Your task to perform on an android device: Open the phone app and click the voicemail tab. Image 0: 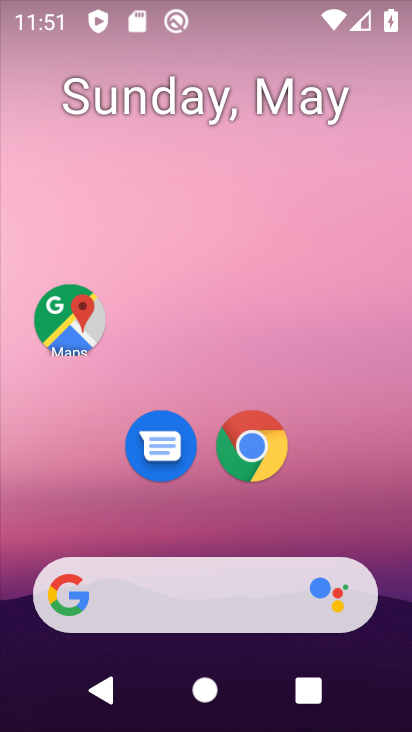
Step 0: drag from (313, 443) to (301, 14)
Your task to perform on an android device: Open the phone app and click the voicemail tab. Image 1: 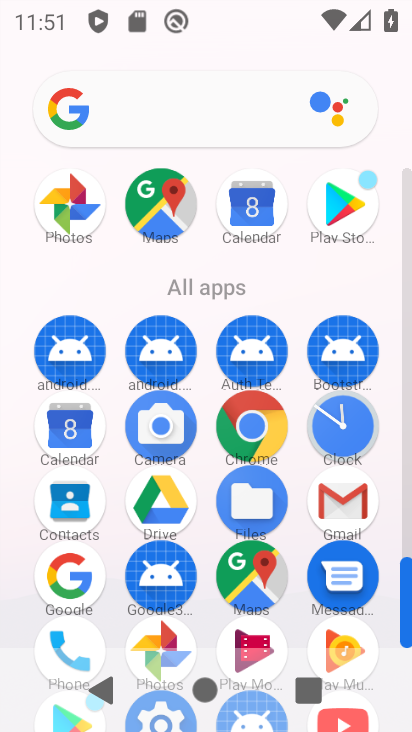
Step 1: drag from (280, 718) to (274, 642)
Your task to perform on an android device: Open the phone app and click the voicemail tab. Image 2: 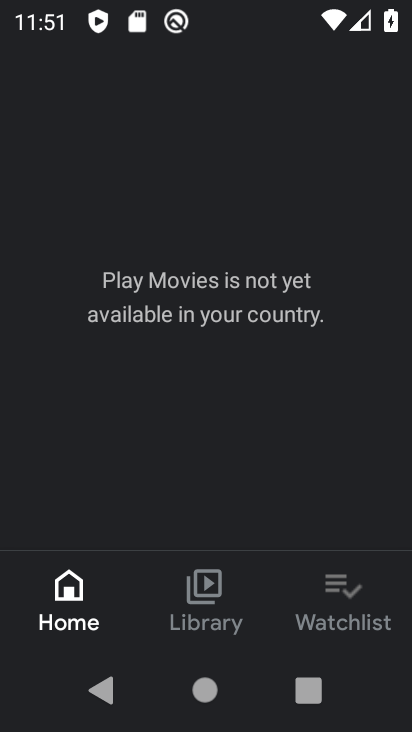
Step 2: press home button
Your task to perform on an android device: Open the phone app and click the voicemail tab. Image 3: 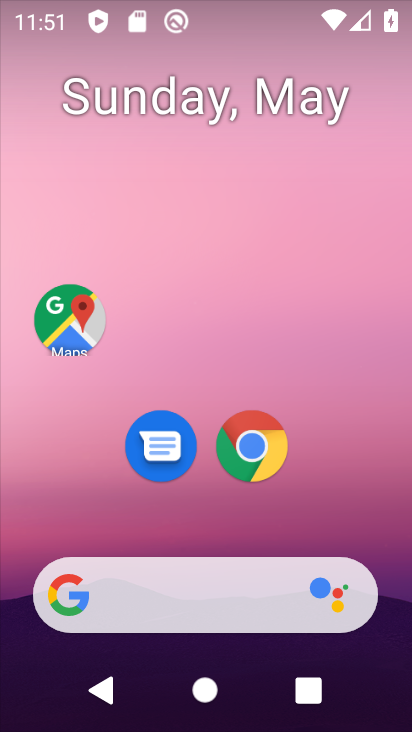
Step 3: drag from (407, 458) to (308, 102)
Your task to perform on an android device: Open the phone app and click the voicemail tab. Image 4: 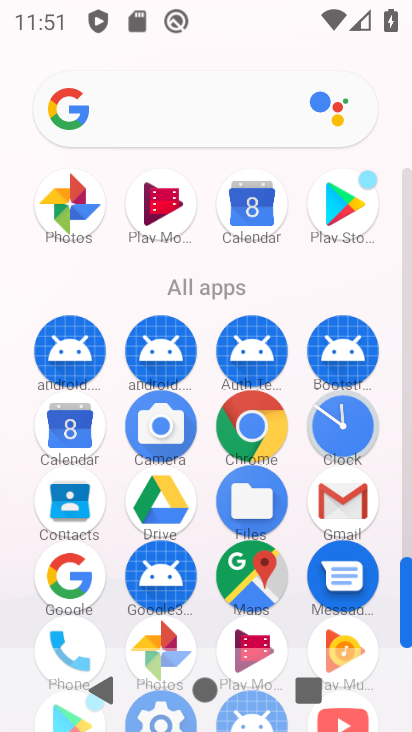
Step 4: click (307, 421)
Your task to perform on an android device: Open the phone app and click the voicemail tab. Image 5: 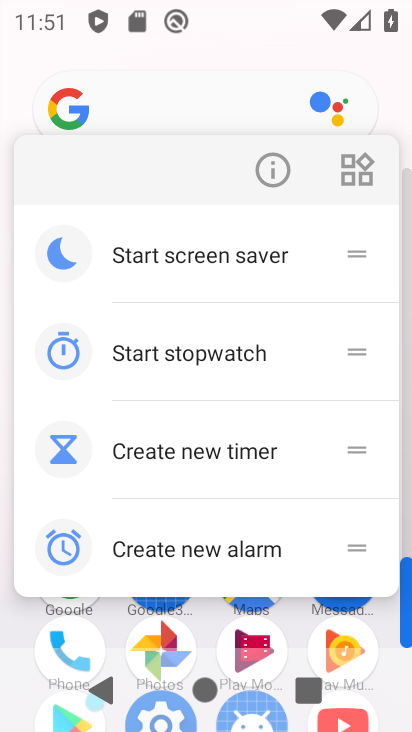
Step 5: press home button
Your task to perform on an android device: Open the phone app and click the voicemail tab. Image 6: 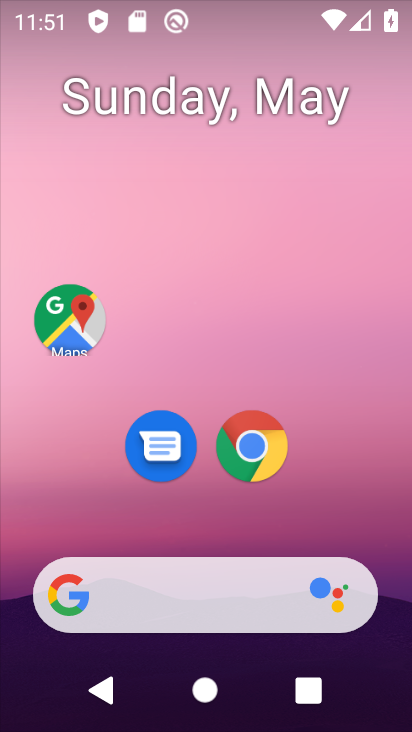
Step 6: drag from (211, 674) to (243, 245)
Your task to perform on an android device: Open the phone app and click the voicemail tab. Image 7: 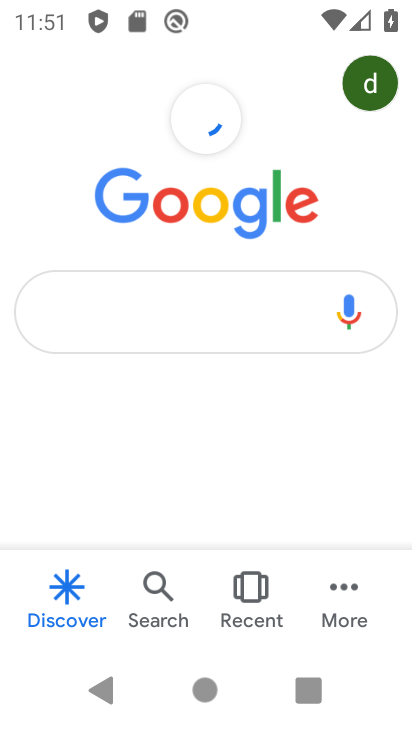
Step 7: press home button
Your task to perform on an android device: Open the phone app and click the voicemail tab. Image 8: 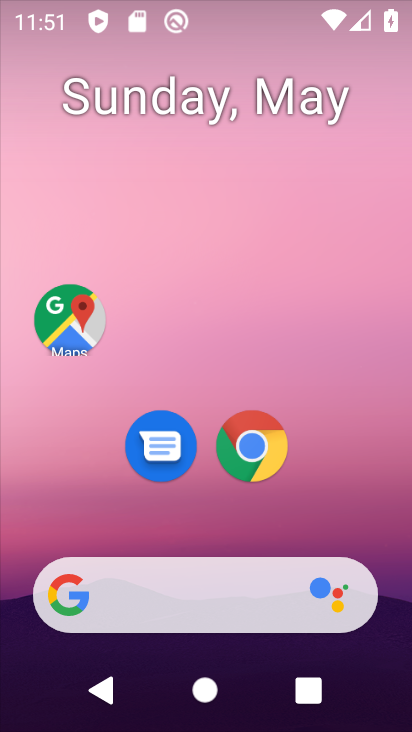
Step 8: drag from (296, 451) to (353, 93)
Your task to perform on an android device: Open the phone app and click the voicemail tab. Image 9: 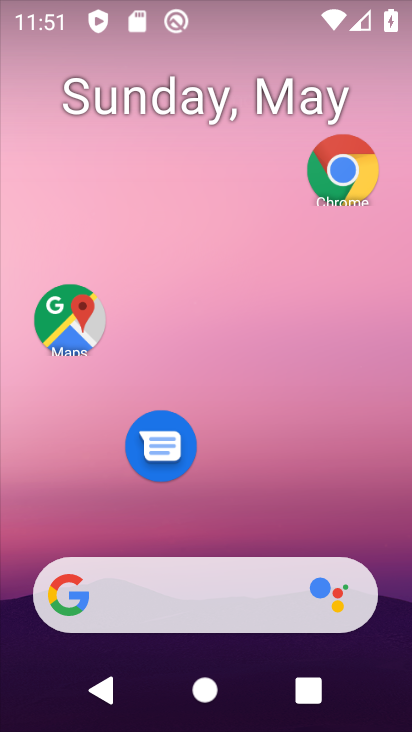
Step 9: drag from (311, 332) to (353, 38)
Your task to perform on an android device: Open the phone app and click the voicemail tab. Image 10: 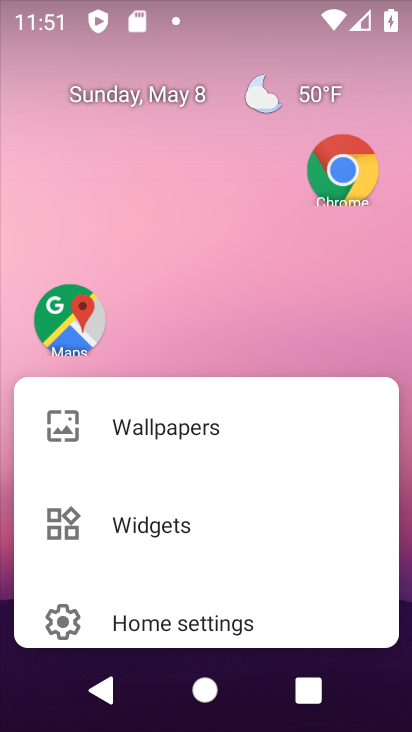
Step 10: click (232, 242)
Your task to perform on an android device: Open the phone app and click the voicemail tab. Image 11: 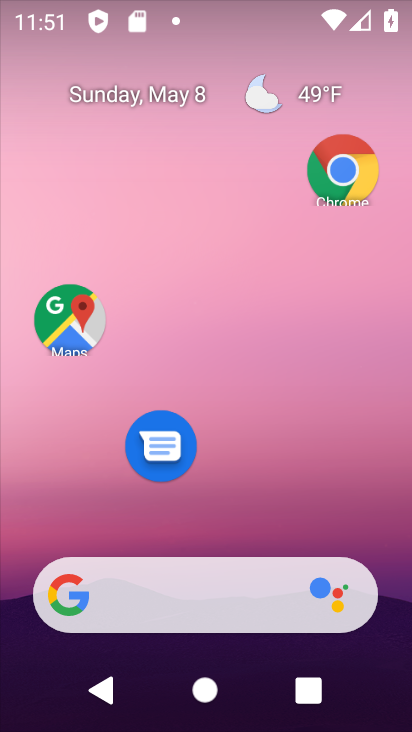
Step 11: drag from (238, 537) to (269, 43)
Your task to perform on an android device: Open the phone app and click the voicemail tab. Image 12: 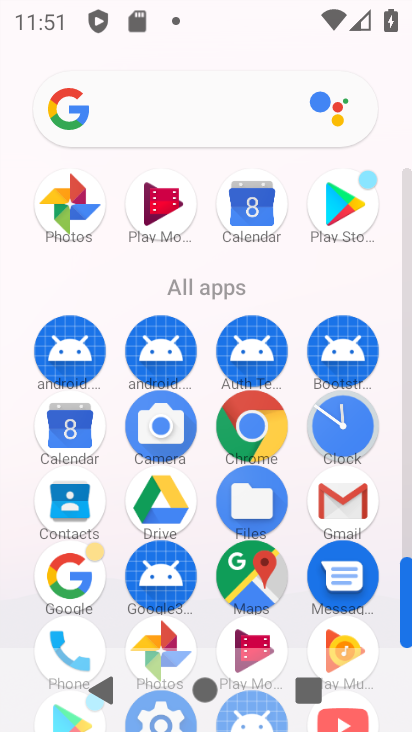
Step 12: drag from (275, 499) to (335, 21)
Your task to perform on an android device: Open the phone app and click the voicemail tab. Image 13: 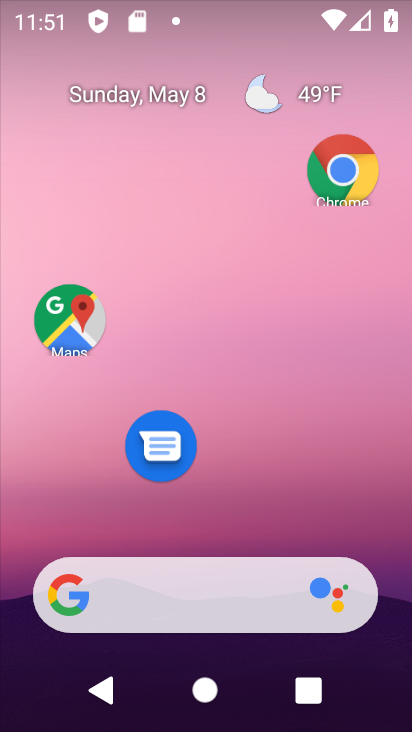
Step 13: press home button
Your task to perform on an android device: Open the phone app and click the voicemail tab. Image 14: 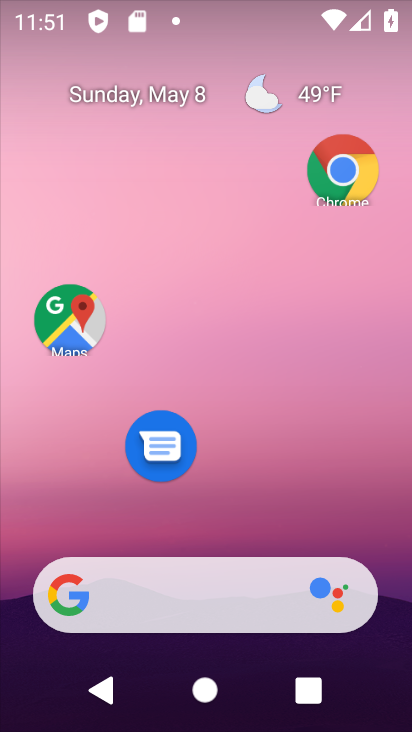
Step 14: drag from (114, 409) to (155, 96)
Your task to perform on an android device: Open the phone app and click the voicemail tab. Image 15: 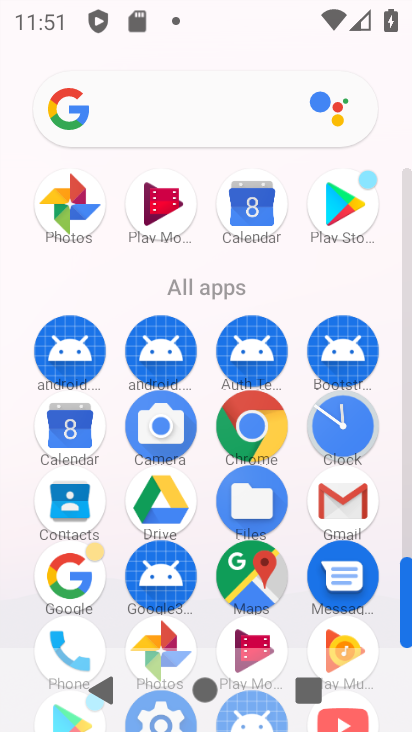
Step 15: drag from (199, 685) to (297, 344)
Your task to perform on an android device: Open the phone app and click the voicemail tab. Image 16: 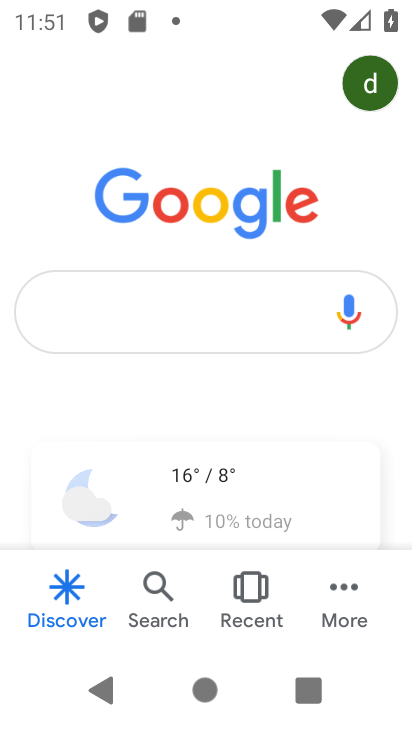
Step 16: click (106, 679)
Your task to perform on an android device: Open the phone app and click the voicemail tab. Image 17: 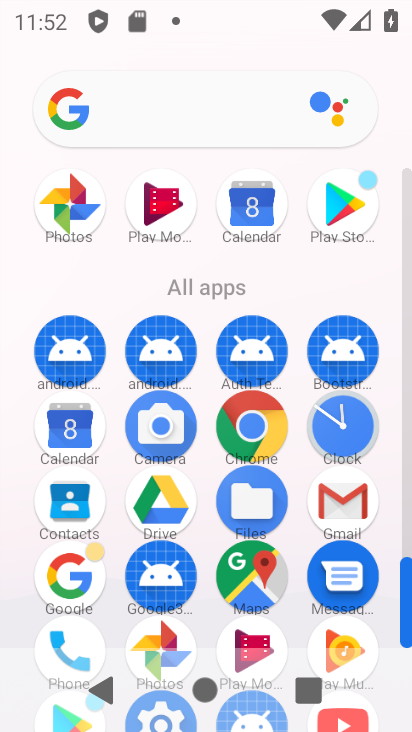
Step 17: drag from (161, 634) to (248, 222)
Your task to perform on an android device: Open the phone app and click the voicemail tab. Image 18: 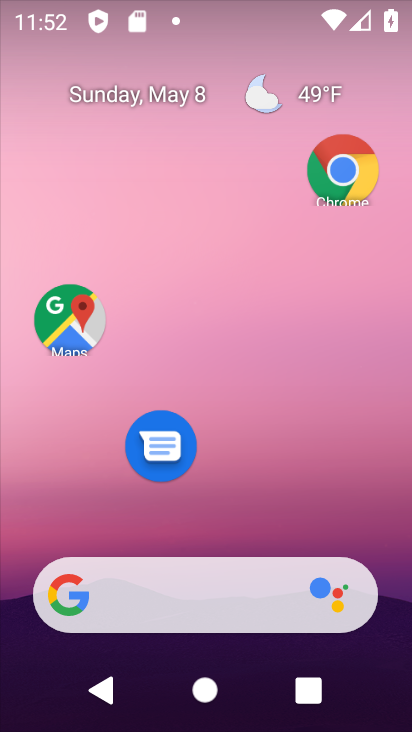
Step 18: drag from (248, 532) to (299, 151)
Your task to perform on an android device: Open the phone app and click the voicemail tab. Image 19: 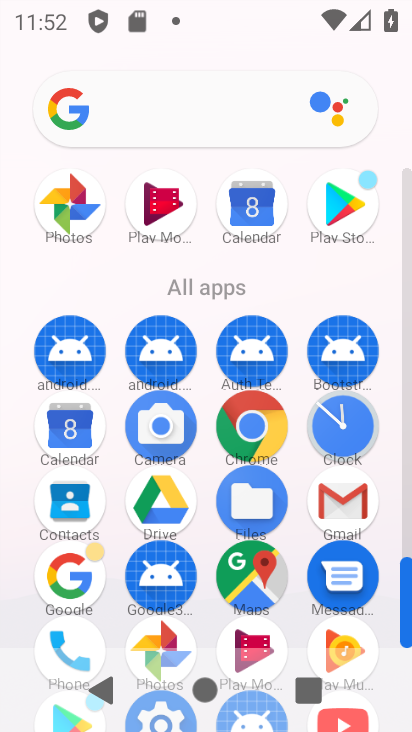
Step 19: drag from (303, 462) to (321, 182)
Your task to perform on an android device: Open the phone app and click the voicemail tab. Image 20: 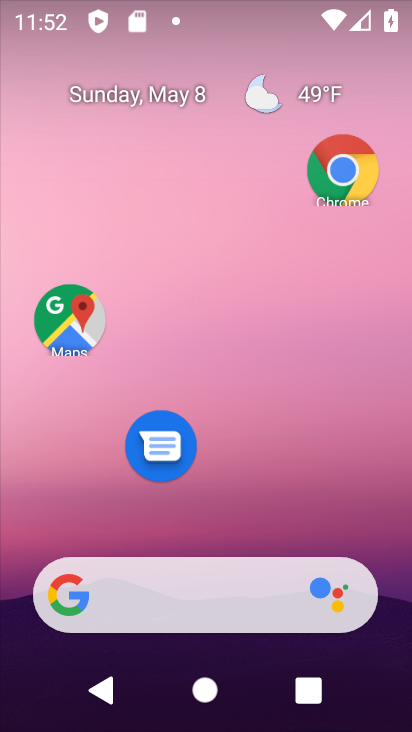
Step 20: drag from (266, 511) to (384, 9)
Your task to perform on an android device: Open the phone app and click the voicemail tab. Image 21: 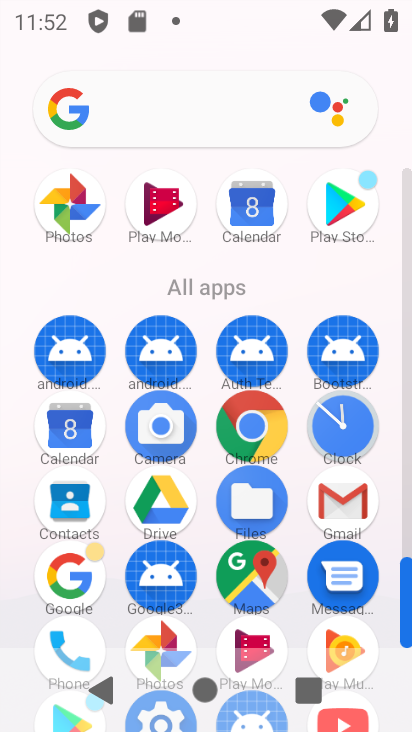
Step 21: drag from (388, 468) to (383, 249)
Your task to perform on an android device: Open the phone app and click the voicemail tab. Image 22: 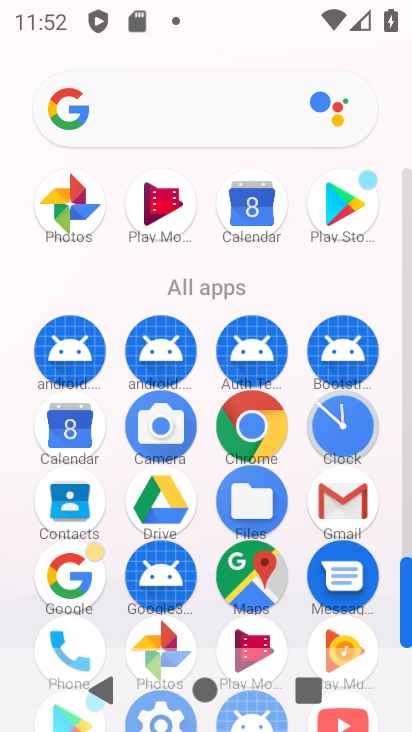
Step 22: drag from (338, 618) to (353, 357)
Your task to perform on an android device: Open the phone app and click the voicemail tab. Image 23: 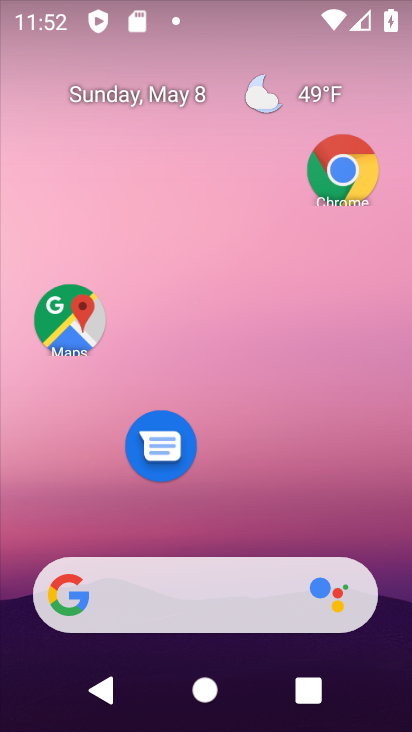
Step 23: drag from (242, 526) to (374, 72)
Your task to perform on an android device: Open the phone app and click the voicemail tab. Image 24: 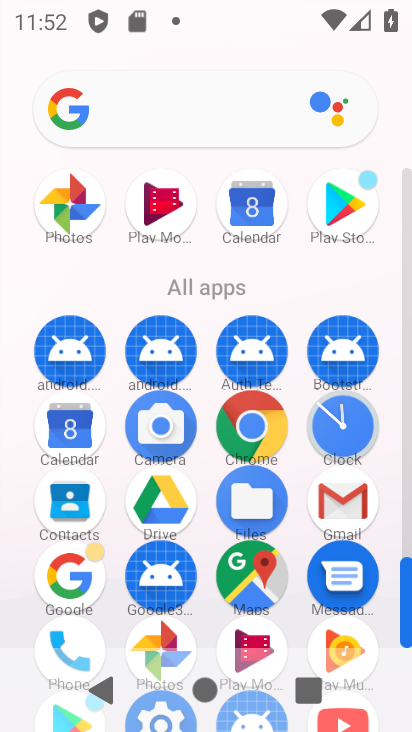
Step 24: click (11, 152)
Your task to perform on an android device: Open the phone app and click the voicemail tab. Image 25: 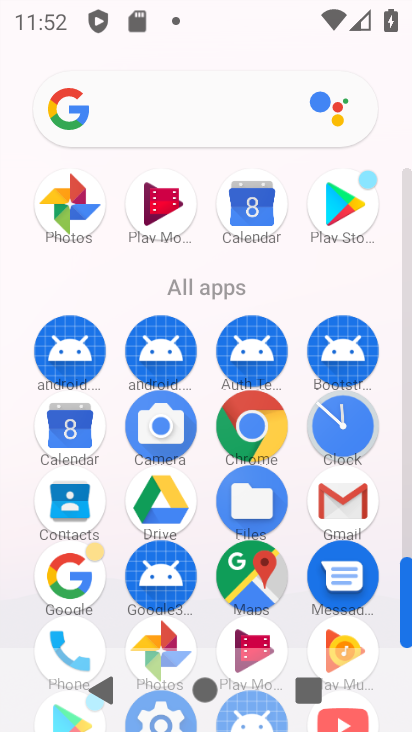
Step 25: click (11, 152)
Your task to perform on an android device: Open the phone app and click the voicemail tab. Image 26: 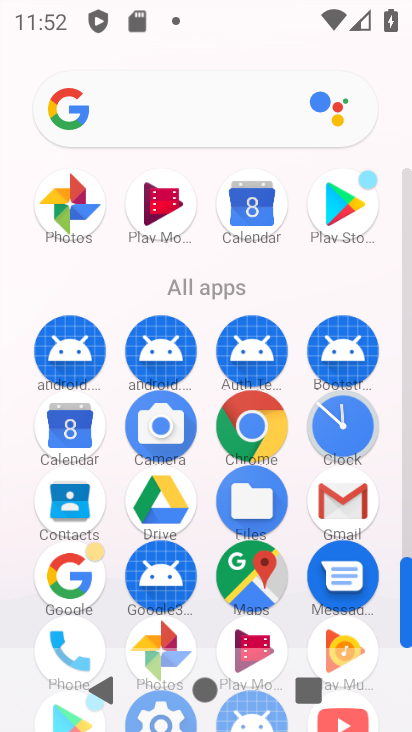
Step 26: drag from (242, 599) to (133, 200)
Your task to perform on an android device: Open the phone app and click the voicemail tab. Image 27: 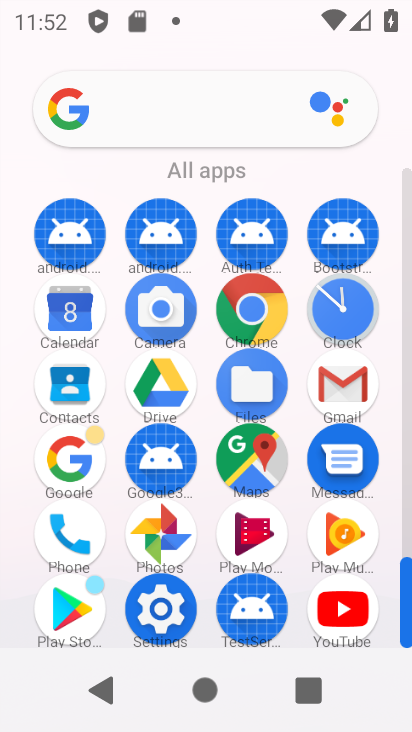
Step 27: click (77, 535)
Your task to perform on an android device: Open the phone app and click the voicemail tab. Image 28: 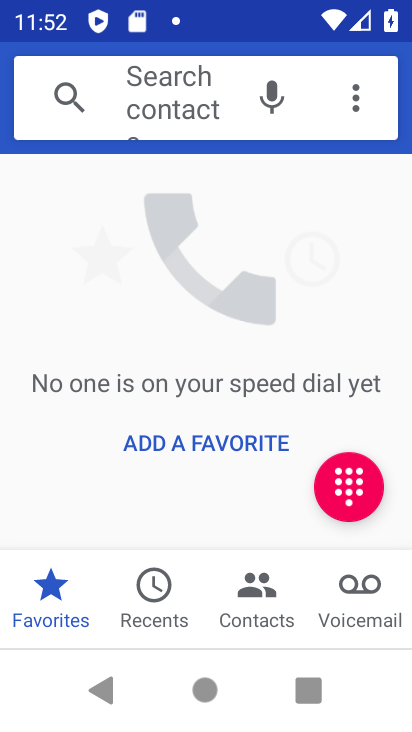
Step 28: click (354, 605)
Your task to perform on an android device: Open the phone app and click the voicemail tab. Image 29: 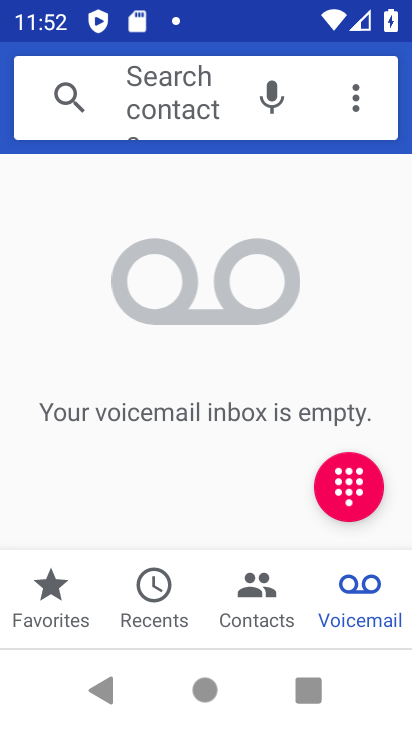
Step 29: task complete